Your task to perform on an android device: Set the phone to "Do not disturb". Image 0: 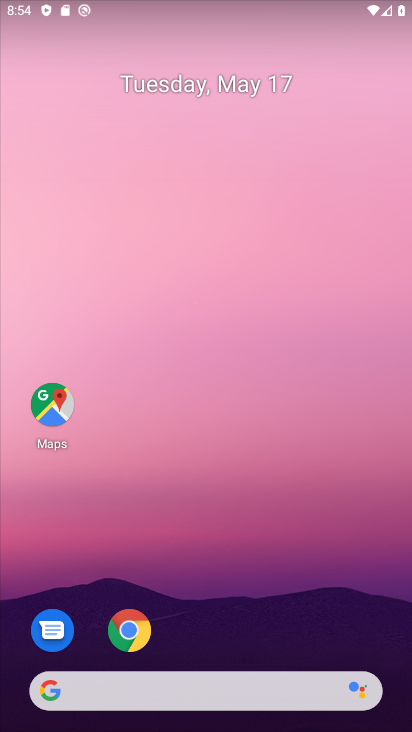
Step 0: drag from (363, 618) to (381, 167)
Your task to perform on an android device: Set the phone to "Do not disturb". Image 1: 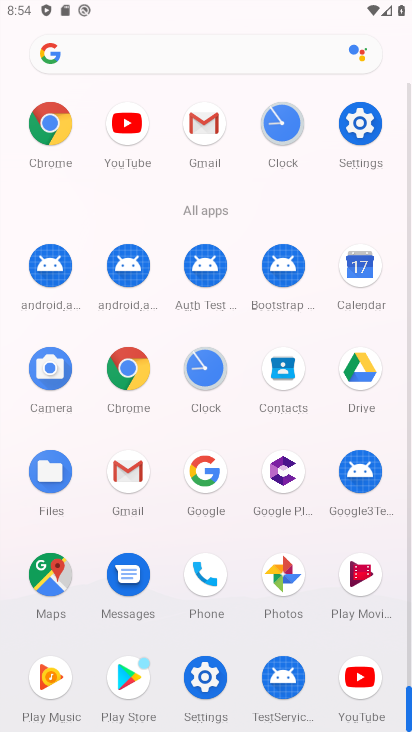
Step 1: click (351, 123)
Your task to perform on an android device: Set the phone to "Do not disturb". Image 2: 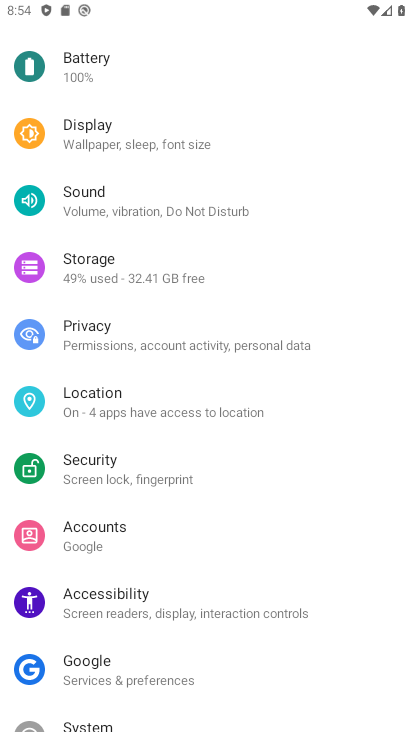
Step 2: drag from (331, 652) to (344, 472)
Your task to perform on an android device: Set the phone to "Do not disturb". Image 3: 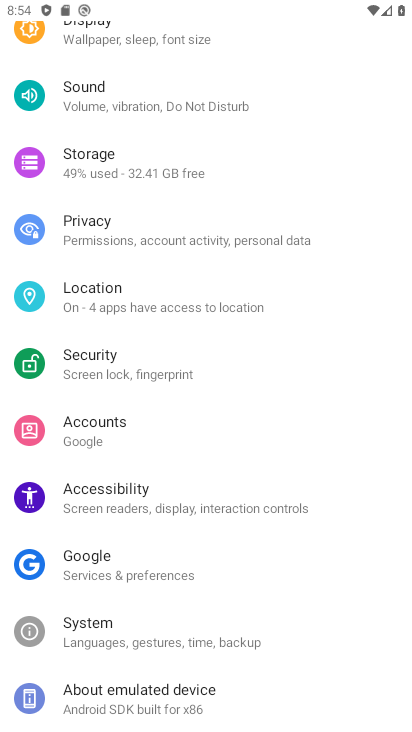
Step 3: drag from (327, 614) to (348, 472)
Your task to perform on an android device: Set the phone to "Do not disturb". Image 4: 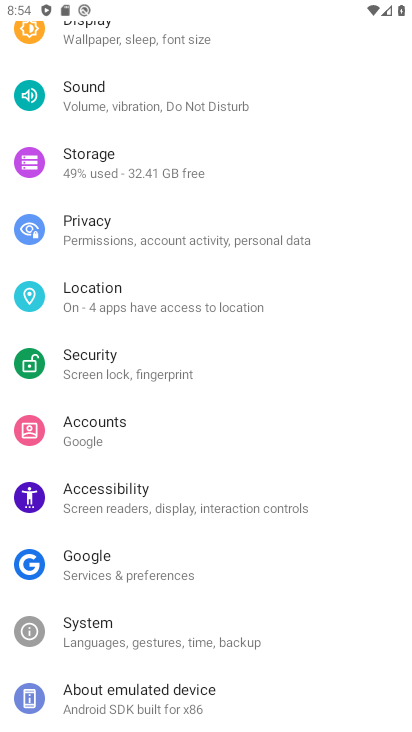
Step 4: drag from (317, 317) to (320, 453)
Your task to perform on an android device: Set the phone to "Do not disturb". Image 5: 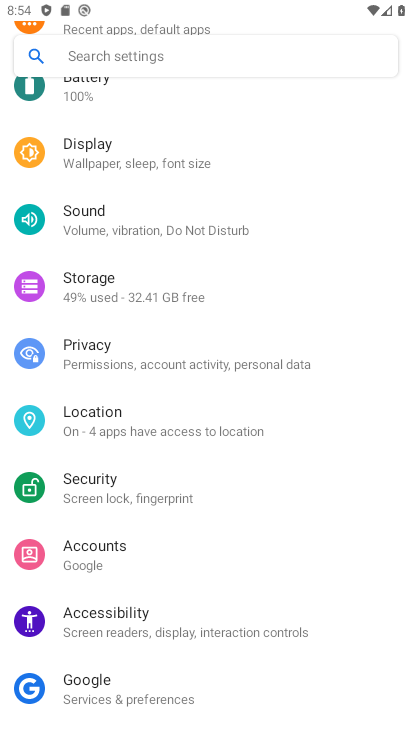
Step 5: drag from (333, 284) to (324, 424)
Your task to perform on an android device: Set the phone to "Do not disturb". Image 6: 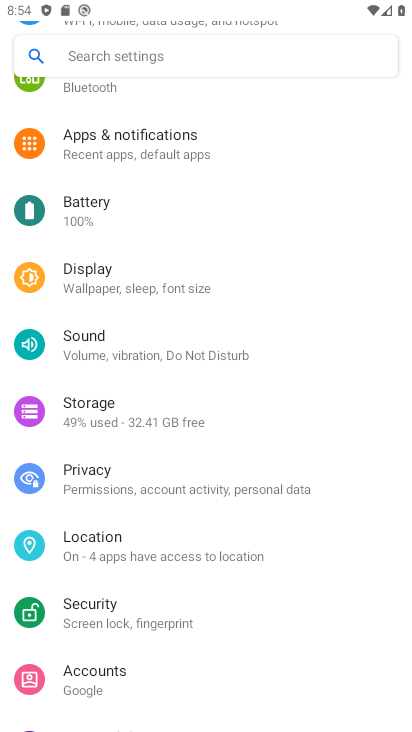
Step 6: drag from (341, 259) to (342, 423)
Your task to perform on an android device: Set the phone to "Do not disturb". Image 7: 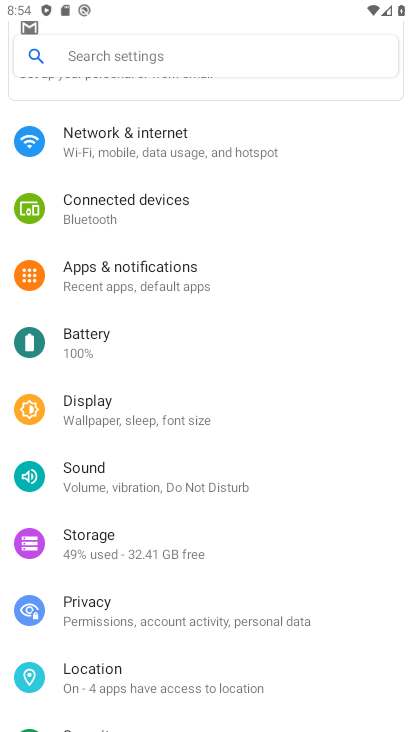
Step 7: drag from (338, 264) to (336, 449)
Your task to perform on an android device: Set the phone to "Do not disturb". Image 8: 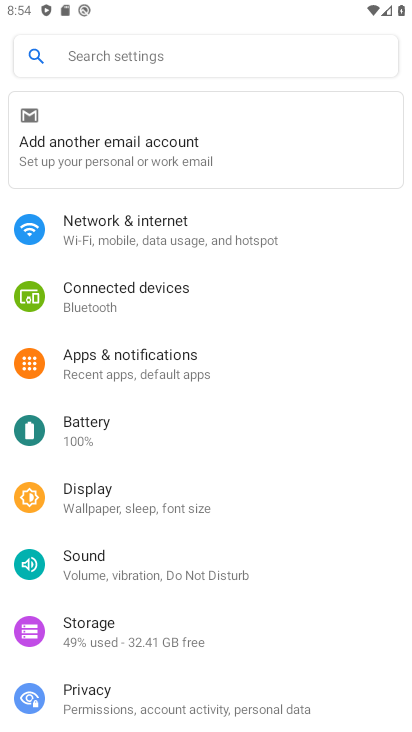
Step 8: drag from (338, 255) to (318, 409)
Your task to perform on an android device: Set the phone to "Do not disturb". Image 9: 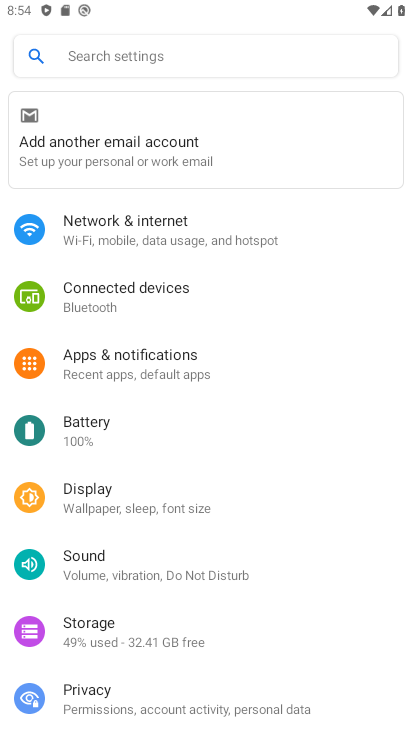
Step 9: drag from (316, 612) to (332, 433)
Your task to perform on an android device: Set the phone to "Do not disturb". Image 10: 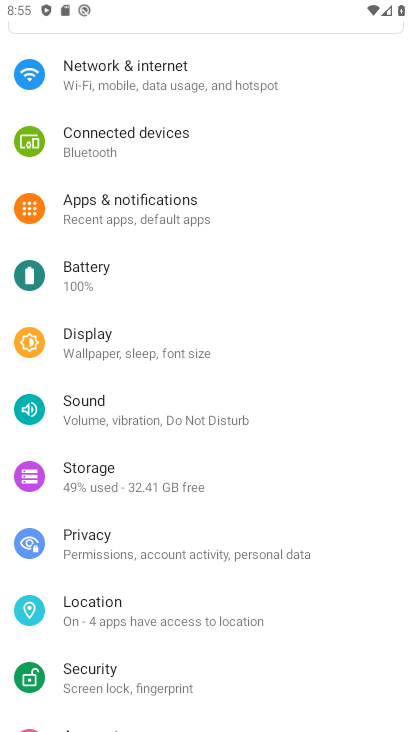
Step 10: drag from (329, 637) to (338, 521)
Your task to perform on an android device: Set the phone to "Do not disturb". Image 11: 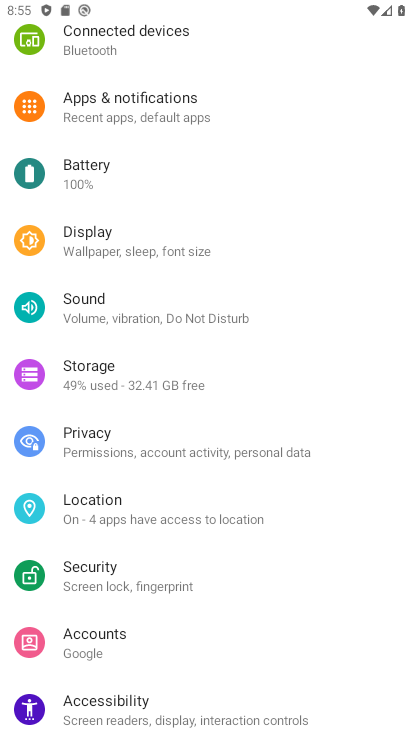
Step 11: drag from (323, 613) to (348, 440)
Your task to perform on an android device: Set the phone to "Do not disturb". Image 12: 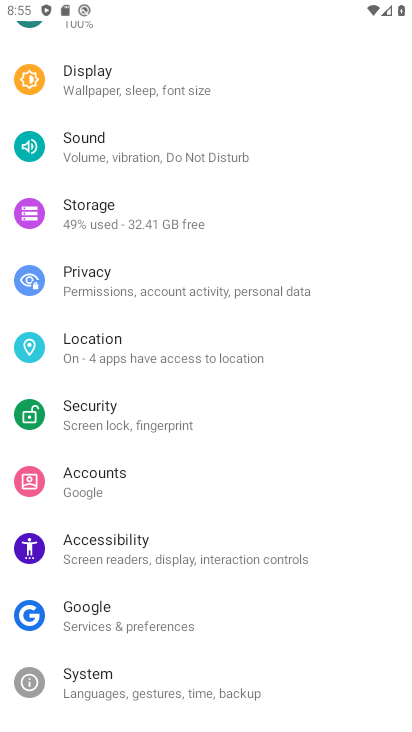
Step 12: drag from (322, 609) to (328, 436)
Your task to perform on an android device: Set the phone to "Do not disturb". Image 13: 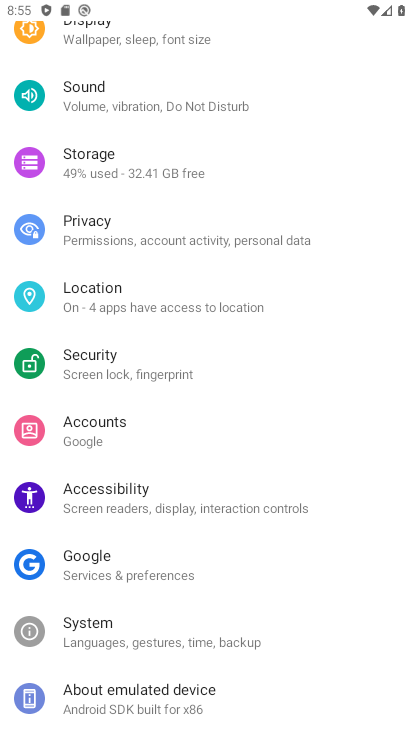
Step 13: drag from (352, 211) to (329, 460)
Your task to perform on an android device: Set the phone to "Do not disturb". Image 14: 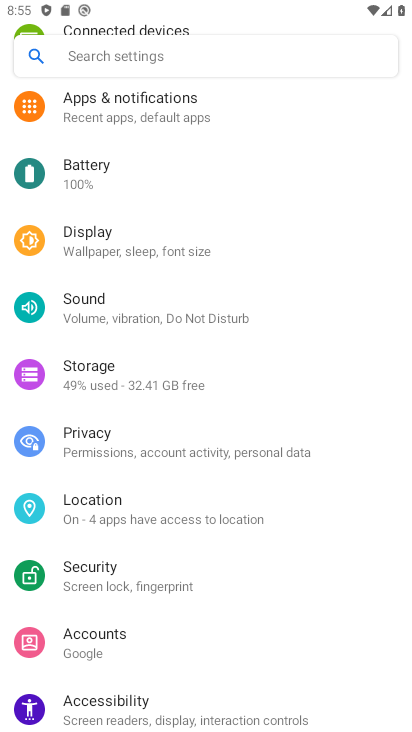
Step 14: click (188, 312)
Your task to perform on an android device: Set the phone to "Do not disturb". Image 15: 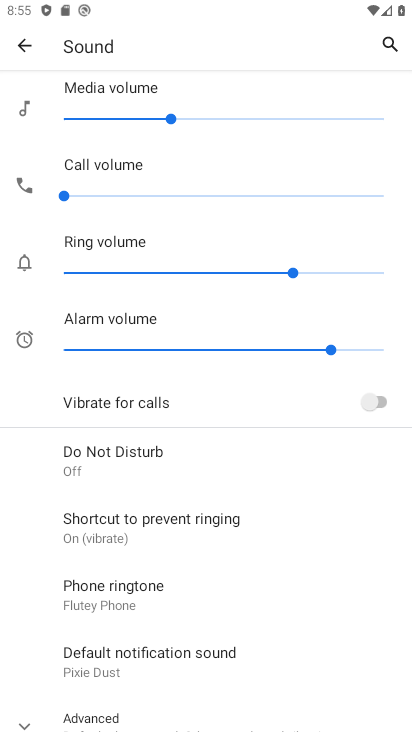
Step 15: drag from (300, 610) to (300, 433)
Your task to perform on an android device: Set the phone to "Do not disturb". Image 16: 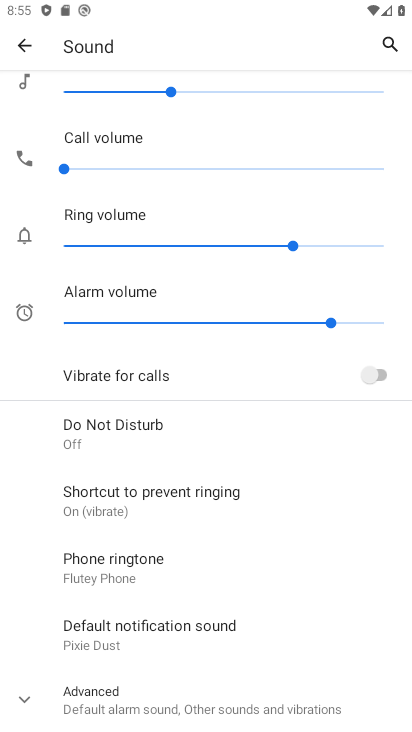
Step 16: click (118, 427)
Your task to perform on an android device: Set the phone to "Do not disturb". Image 17: 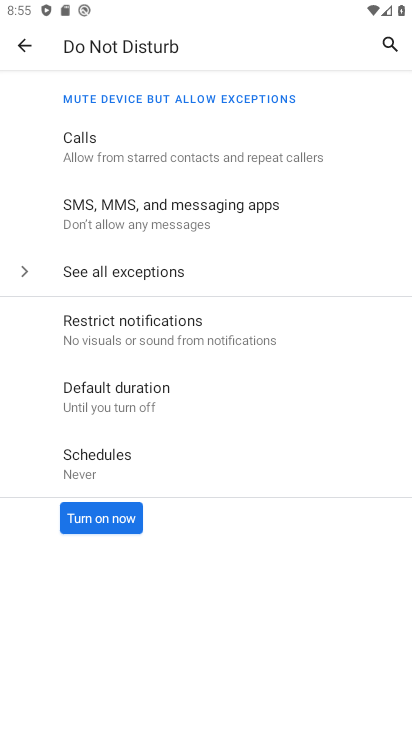
Step 17: click (101, 519)
Your task to perform on an android device: Set the phone to "Do not disturb". Image 18: 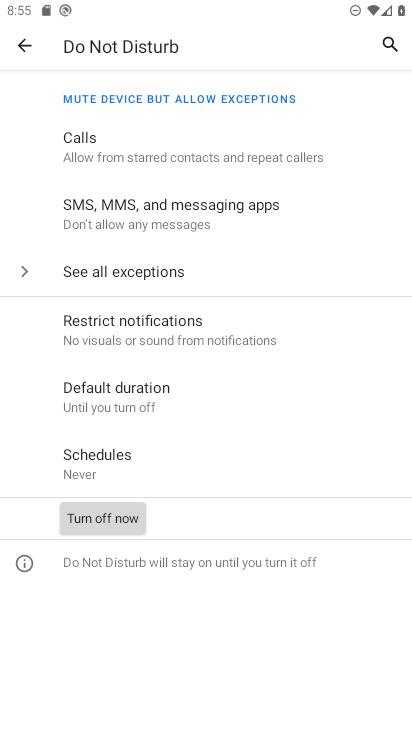
Step 18: task complete